Your task to perform on an android device: Open the phone app and click the voicemail tab. Image 0: 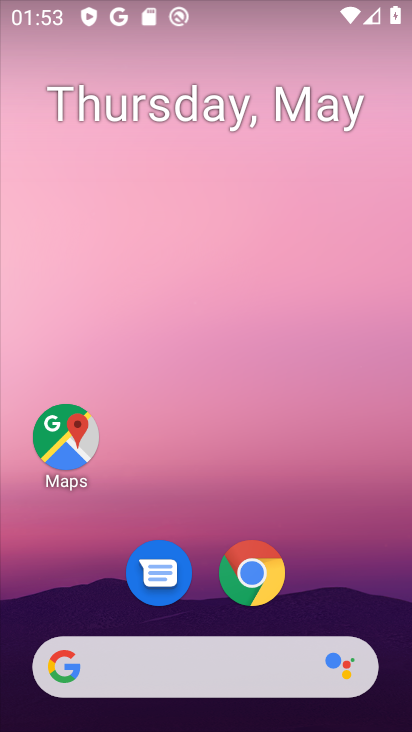
Step 0: drag from (320, 529) to (320, 228)
Your task to perform on an android device: Open the phone app and click the voicemail tab. Image 1: 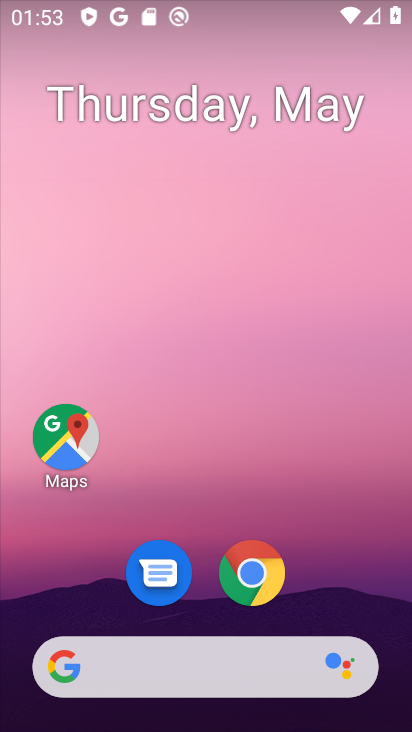
Step 1: drag from (326, 590) to (345, 185)
Your task to perform on an android device: Open the phone app and click the voicemail tab. Image 2: 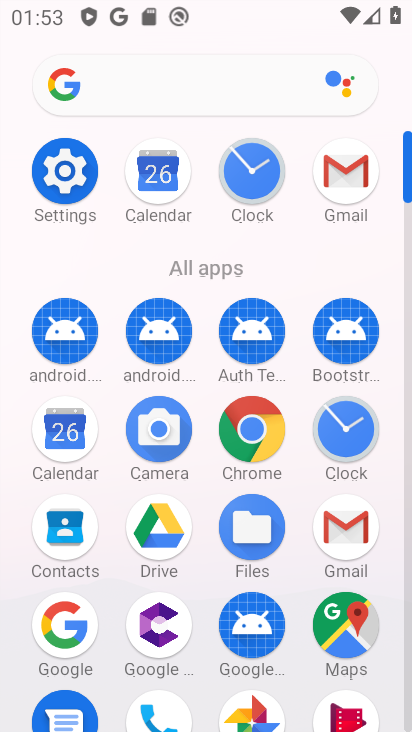
Step 2: drag from (235, 633) to (281, 285)
Your task to perform on an android device: Open the phone app and click the voicemail tab. Image 3: 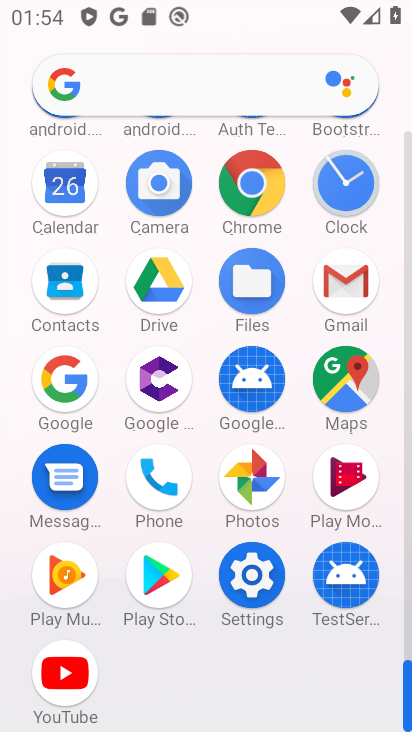
Step 3: click (150, 482)
Your task to perform on an android device: Open the phone app and click the voicemail tab. Image 4: 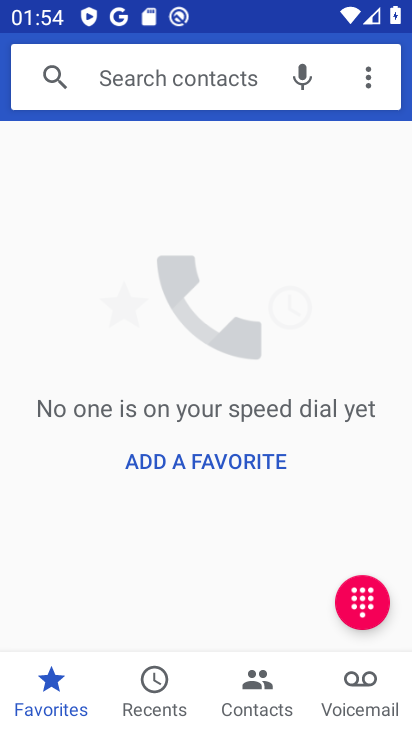
Step 4: click (344, 666)
Your task to perform on an android device: Open the phone app and click the voicemail tab. Image 5: 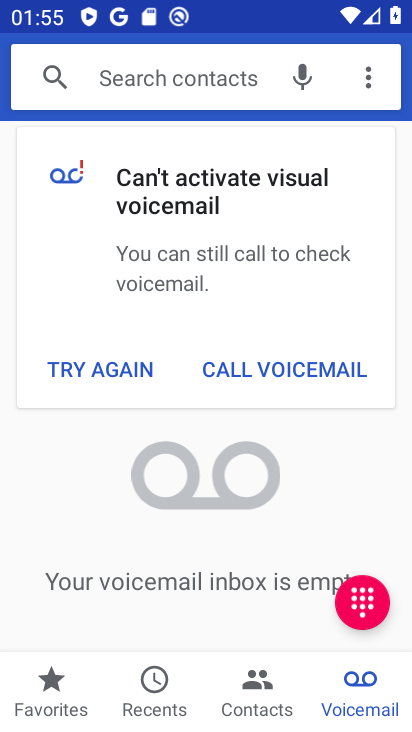
Step 5: task complete